Your task to perform on an android device: turn on translation in the chrome app Image 0: 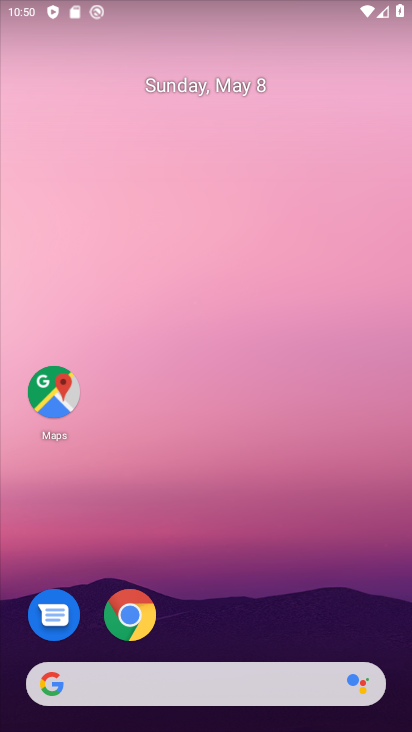
Step 0: click (128, 619)
Your task to perform on an android device: turn on translation in the chrome app Image 1: 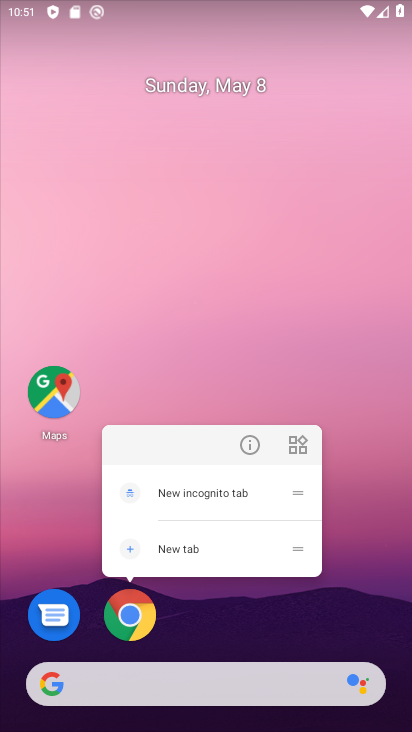
Step 1: click (129, 612)
Your task to perform on an android device: turn on translation in the chrome app Image 2: 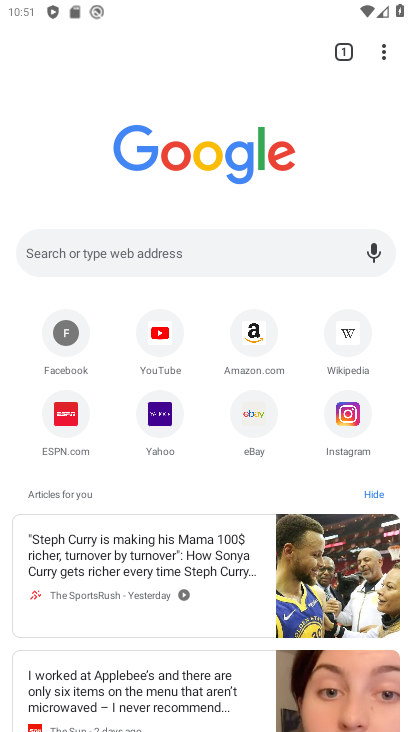
Step 2: drag from (384, 53) to (212, 439)
Your task to perform on an android device: turn on translation in the chrome app Image 3: 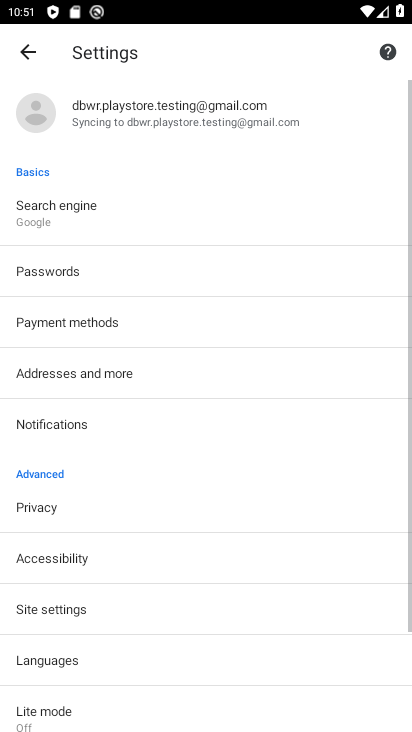
Step 3: click (79, 663)
Your task to perform on an android device: turn on translation in the chrome app Image 4: 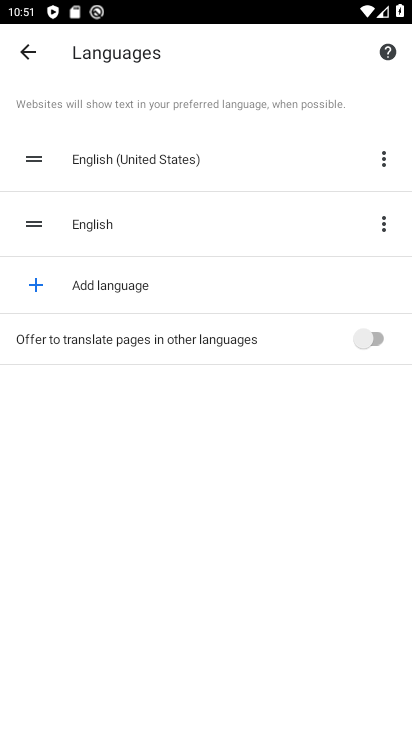
Step 4: click (372, 331)
Your task to perform on an android device: turn on translation in the chrome app Image 5: 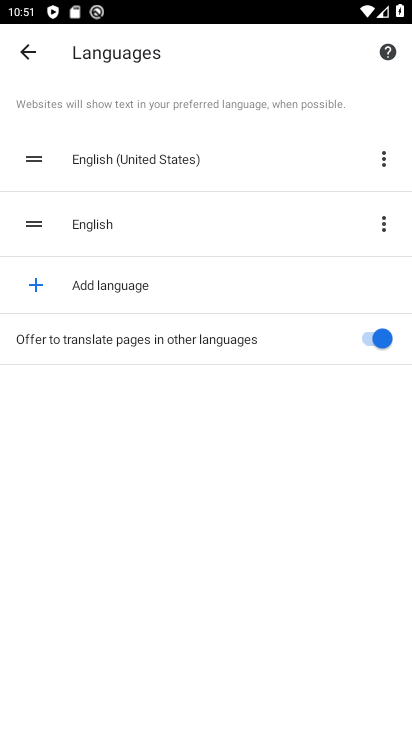
Step 5: task complete